Your task to perform on an android device: refresh tabs in the chrome app Image 0: 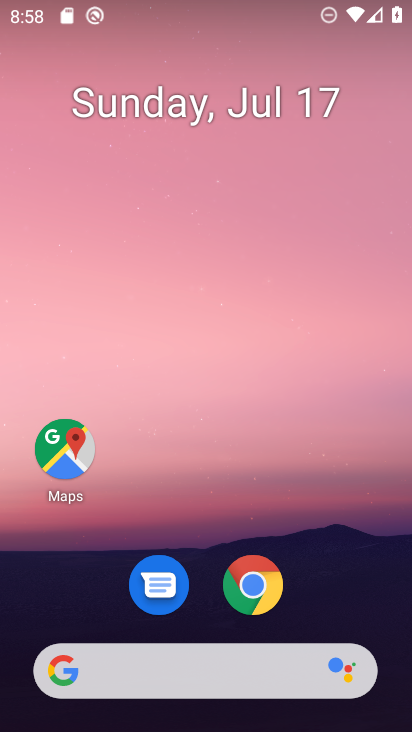
Step 0: click (247, 588)
Your task to perform on an android device: refresh tabs in the chrome app Image 1: 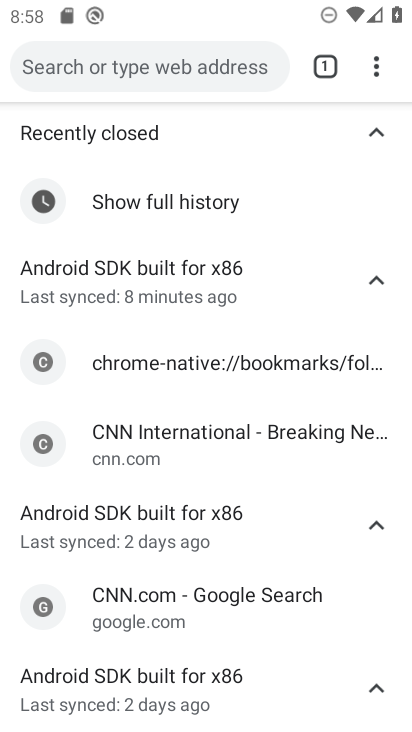
Step 1: click (375, 78)
Your task to perform on an android device: refresh tabs in the chrome app Image 2: 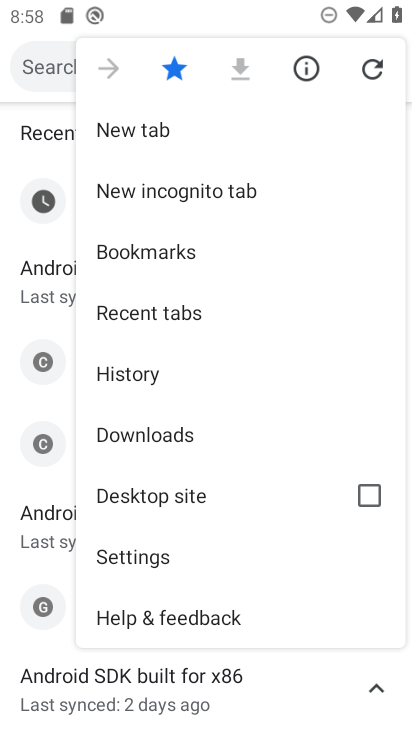
Step 2: click (368, 70)
Your task to perform on an android device: refresh tabs in the chrome app Image 3: 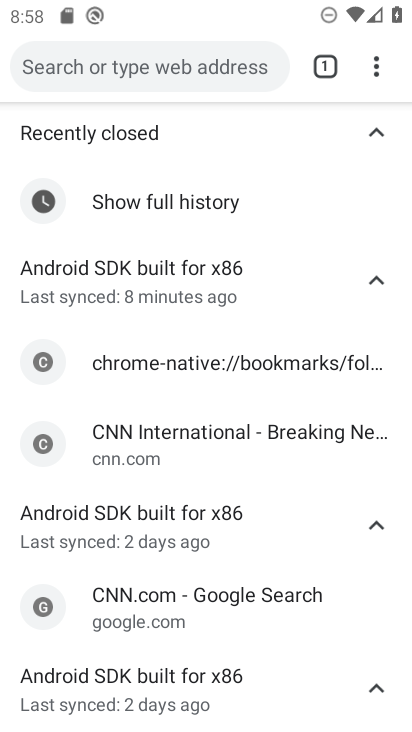
Step 3: task complete